Your task to perform on an android device: open chrome and create a bookmark for the current page Image 0: 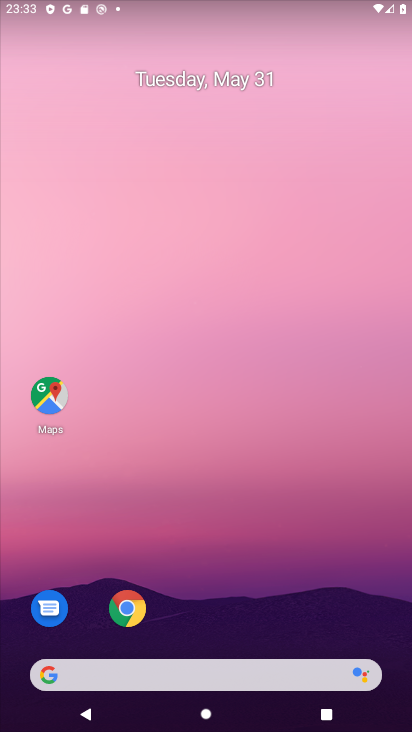
Step 0: press home button
Your task to perform on an android device: open chrome and create a bookmark for the current page Image 1: 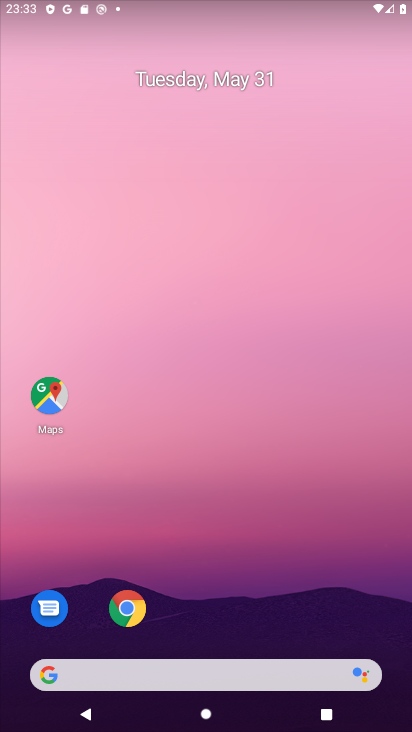
Step 1: click (142, 609)
Your task to perform on an android device: open chrome and create a bookmark for the current page Image 2: 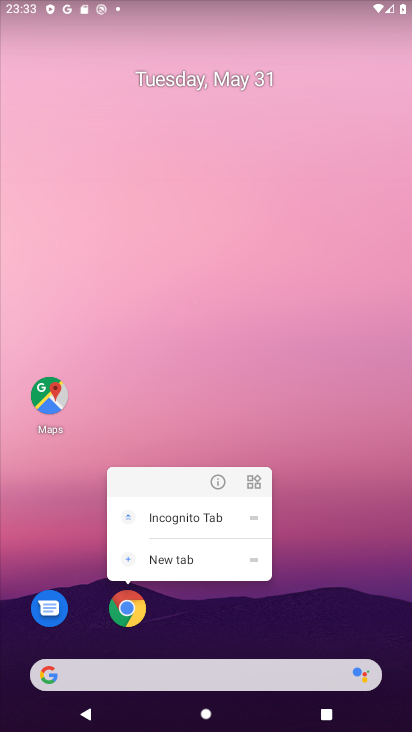
Step 2: click (142, 604)
Your task to perform on an android device: open chrome and create a bookmark for the current page Image 3: 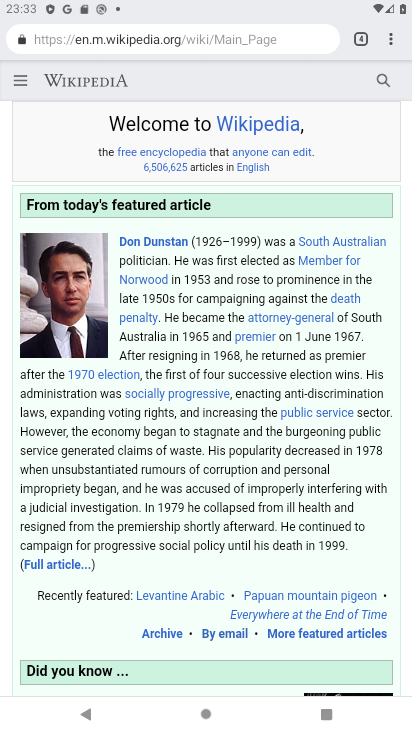
Step 3: task complete